Your task to perform on an android device: toggle pop-ups in chrome Image 0: 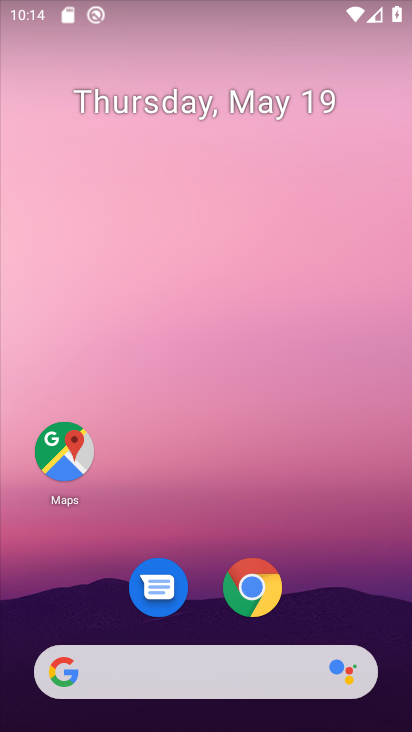
Step 0: drag from (361, 598) to (344, 172)
Your task to perform on an android device: toggle pop-ups in chrome Image 1: 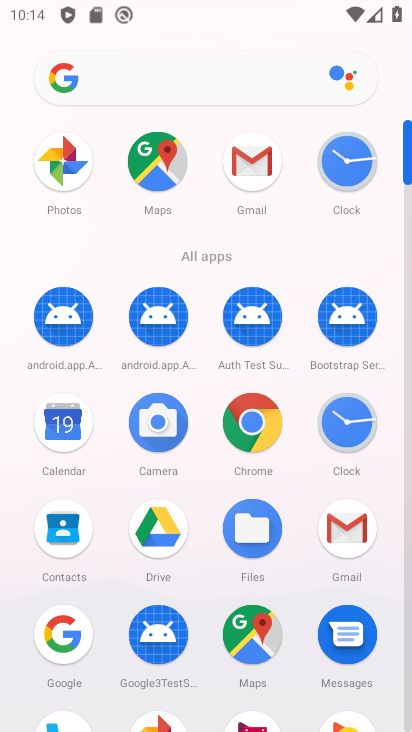
Step 1: drag from (295, 578) to (297, 299)
Your task to perform on an android device: toggle pop-ups in chrome Image 2: 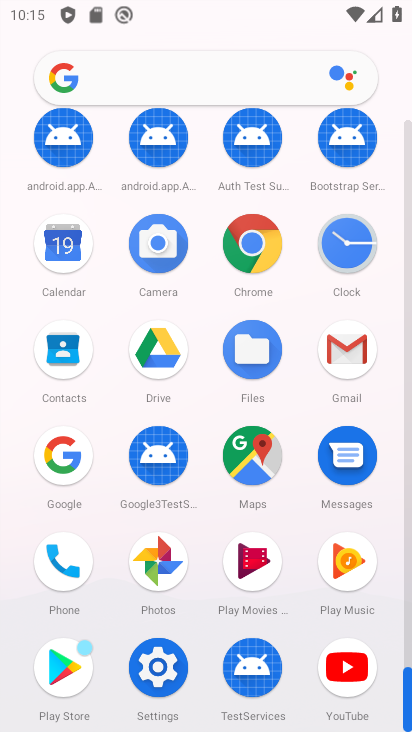
Step 2: click (263, 229)
Your task to perform on an android device: toggle pop-ups in chrome Image 3: 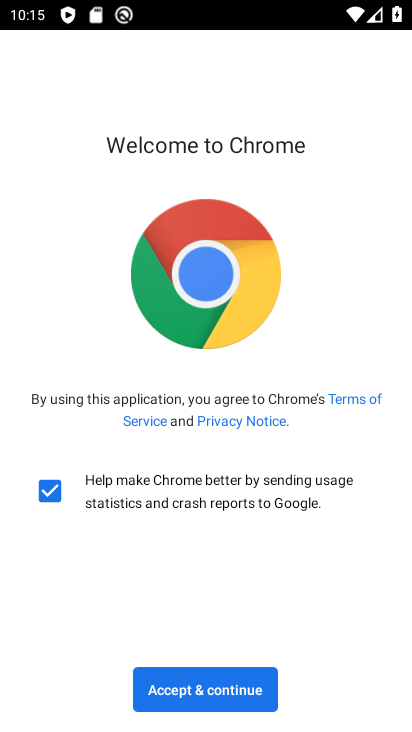
Step 3: click (206, 694)
Your task to perform on an android device: toggle pop-ups in chrome Image 4: 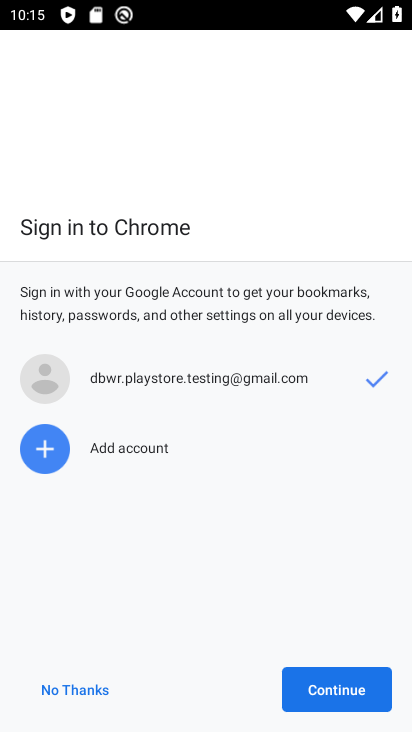
Step 4: click (348, 691)
Your task to perform on an android device: toggle pop-ups in chrome Image 5: 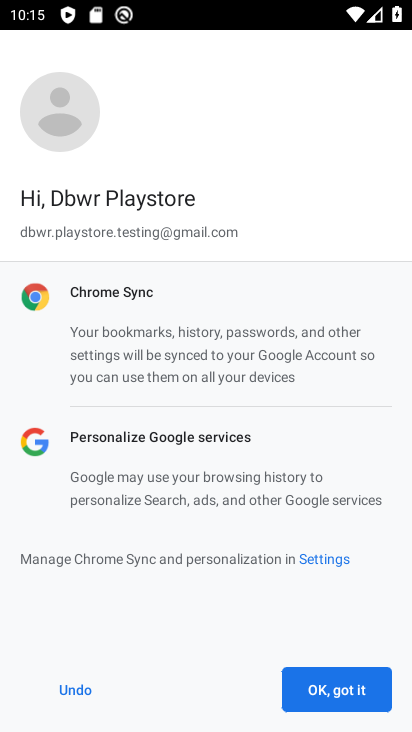
Step 5: click (352, 690)
Your task to perform on an android device: toggle pop-ups in chrome Image 6: 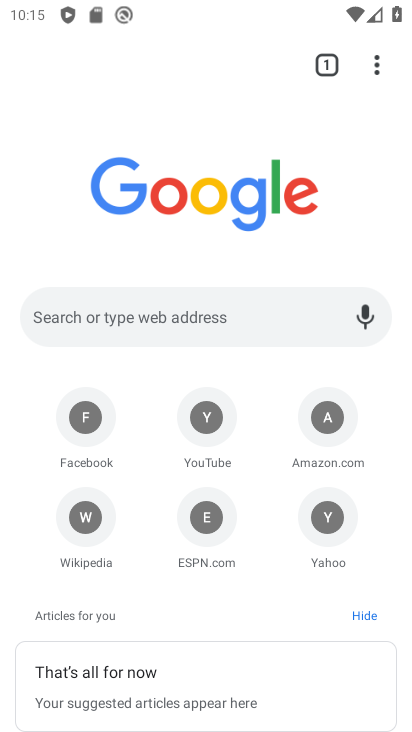
Step 6: drag from (382, 76) to (170, 543)
Your task to perform on an android device: toggle pop-ups in chrome Image 7: 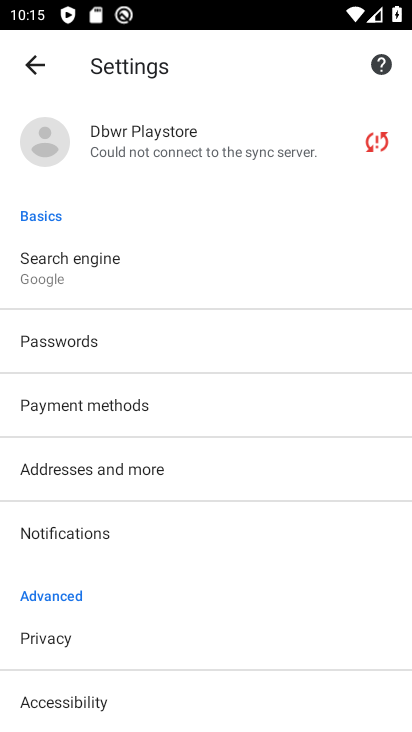
Step 7: drag from (192, 633) to (245, 241)
Your task to perform on an android device: toggle pop-ups in chrome Image 8: 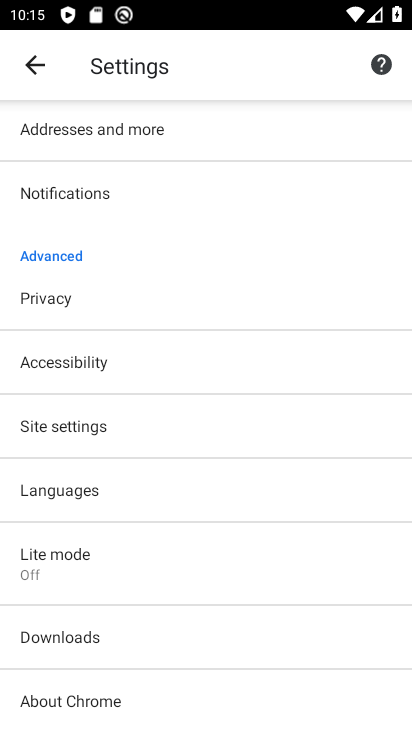
Step 8: click (149, 419)
Your task to perform on an android device: toggle pop-ups in chrome Image 9: 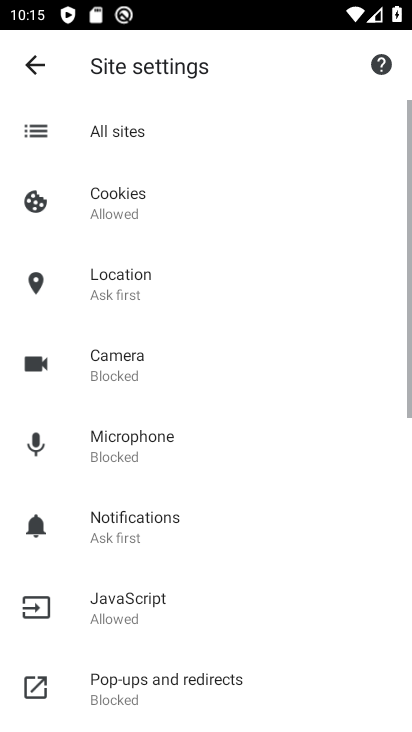
Step 9: click (243, 403)
Your task to perform on an android device: toggle pop-ups in chrome Image 10: 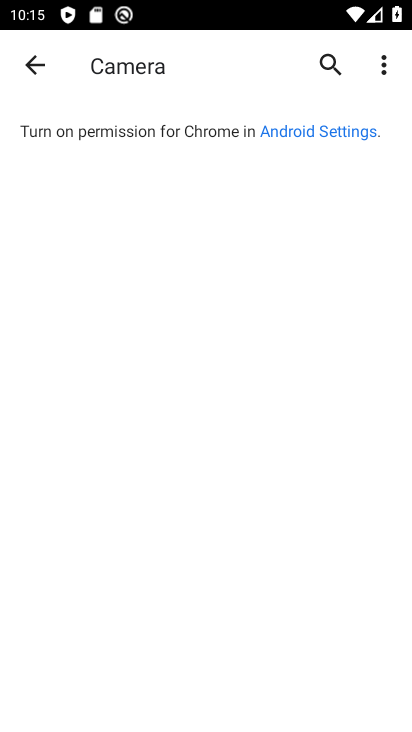
Step 10: click (33, 77)
Your task to perform on an android device: toggle pop-ups in chrome Image 11: 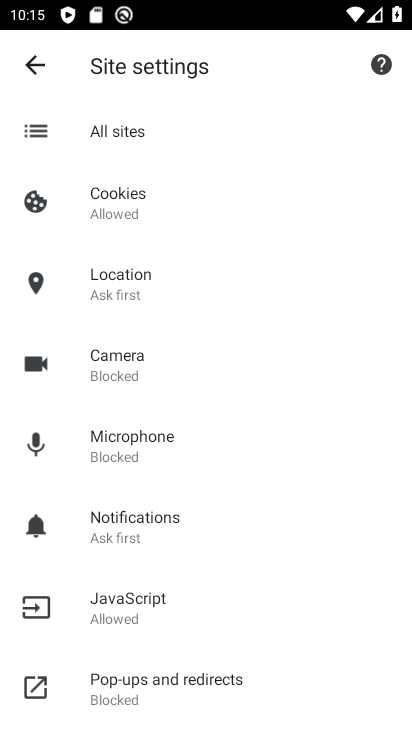
Step 11: click (190, 699)
Your task to perform on an android device: toggle pop-ups in chrome Image 12: 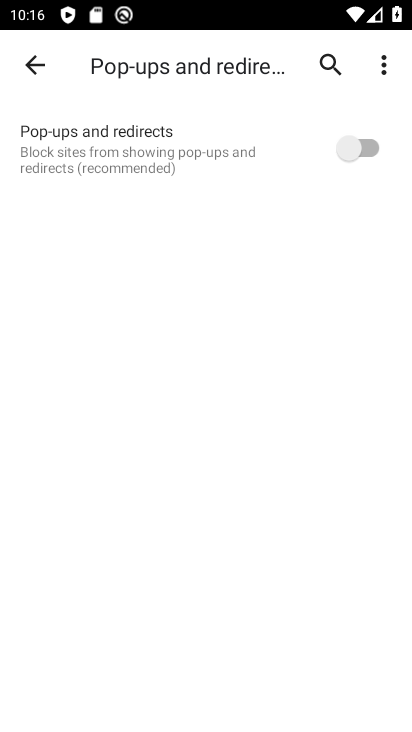
Step 12: click (370, 136)
Your task to perform on an android device: toggle pop-ups in chrome Image 13: 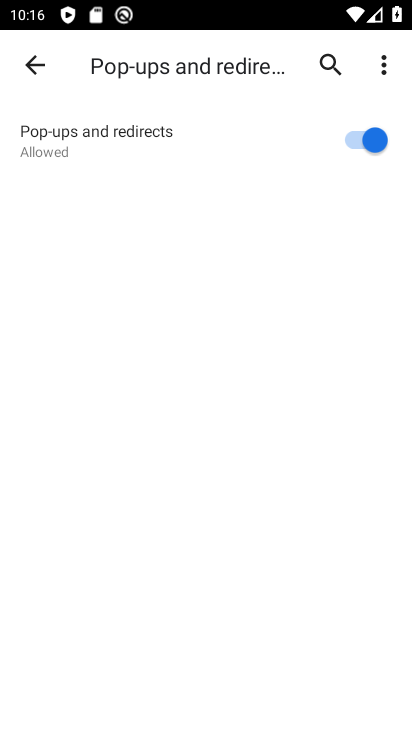
Step 13: task complete